Your task to perform on an android device: turn on showing notifications on the lock screen Image 0: 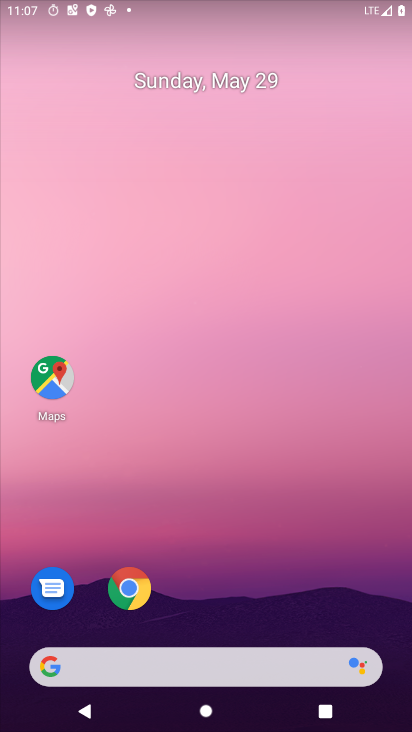
Step 0: drag from (276, 611) to (263, 187)
Your task to perform on an android device: turn on showing notifications on the lock screen Image 1: 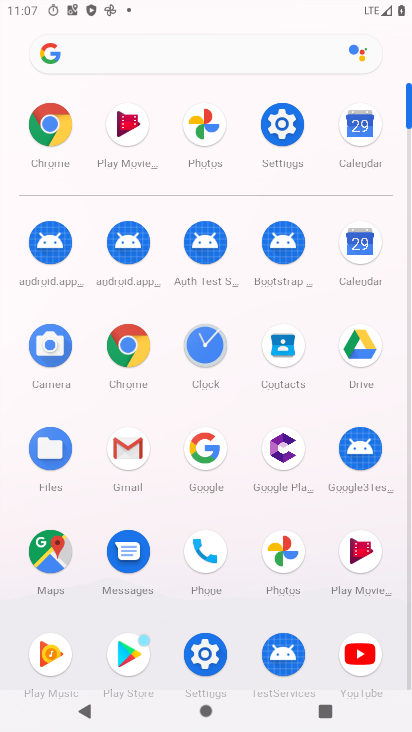
Step 1: click (277, 140)
Your task to perform on an android device: turn on showing notifications on the lock screen Image 2: 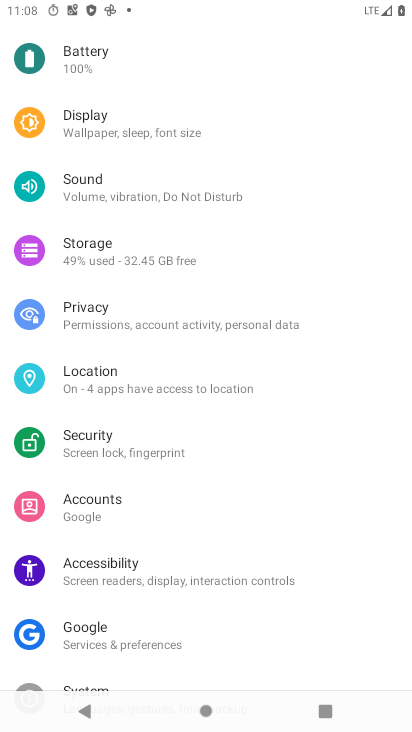
Step 2: drag from (187, 217) to (216, 665)
Your task to perform on an android device: turn on showing notifications on the lock screen Image 3: 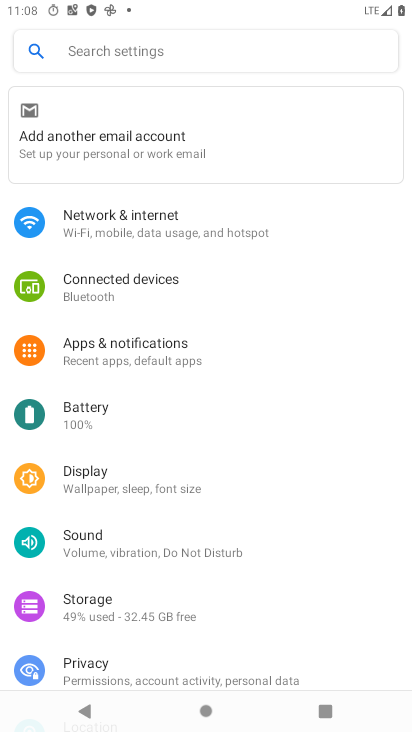
Step 3: click (185, 360)
Your task to perform on an android device: turn on showing notifications on the lock screen Image 4: 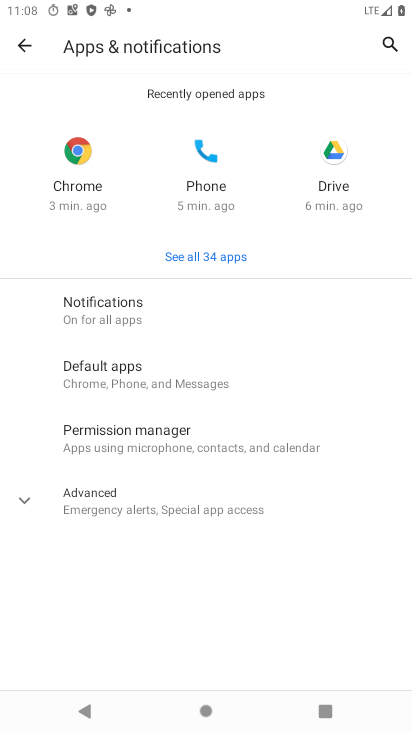
Step 4: click (201, 328)
Your task to perform on an android device: turn on showing notifications on the lock screen Image 5: 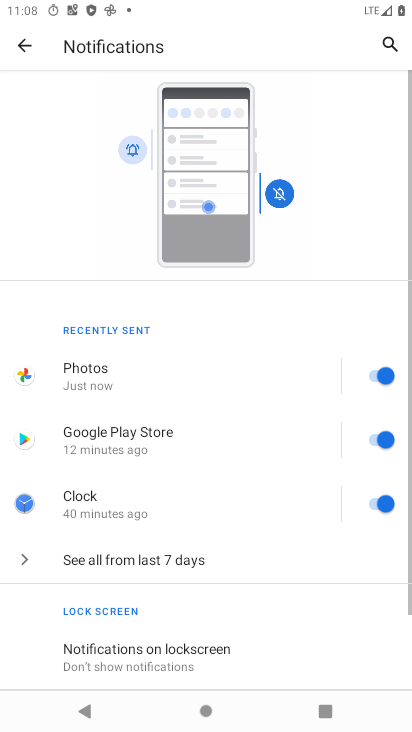
Step 5: click (201, 657)
Your task to perform on an android device: turn on showing notifications on the lock screen Image 6: 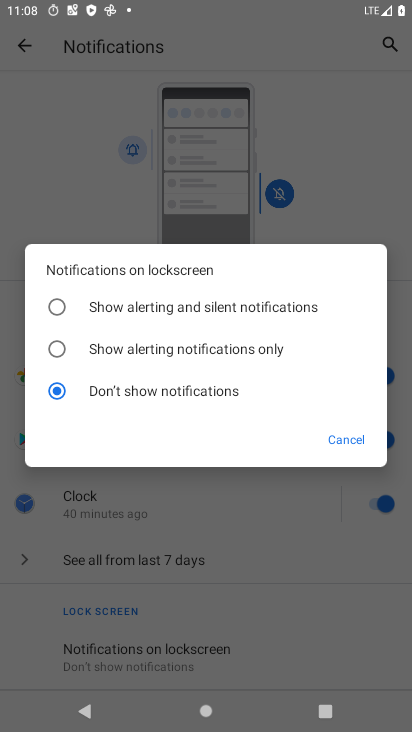
Step 6: click (172, 302)
Your task to perform on an android device: turn on showing notifications on the lock screen Image 7: 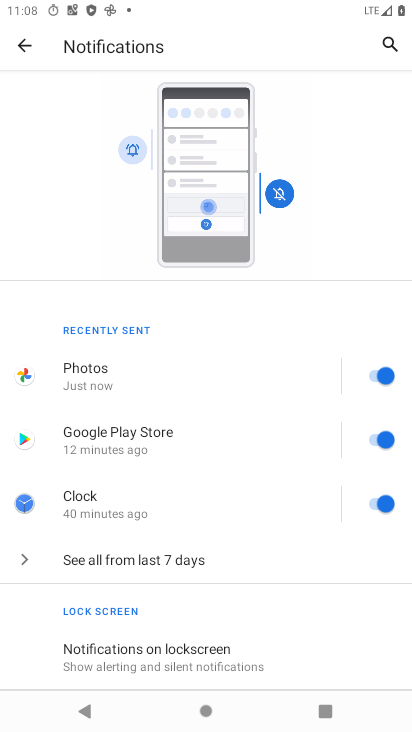
Step 7: task complete